Your task to perform on an android device: Open Yahoo.com Image 0: 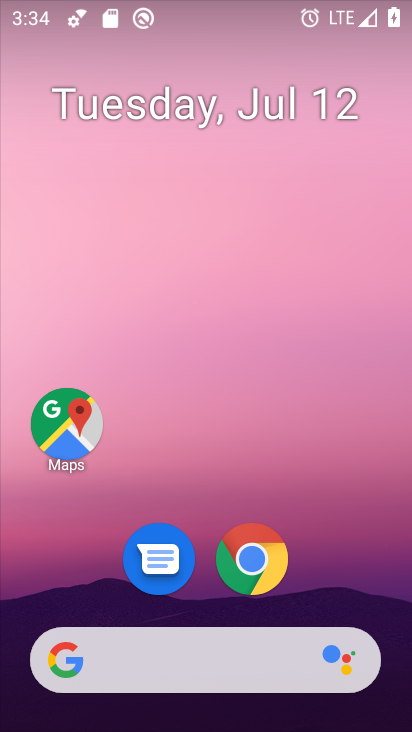
Step 0: drag from (382, 600) to (383, 127)
Your task to perform on an android device: Open Yahoo.com Image 1: 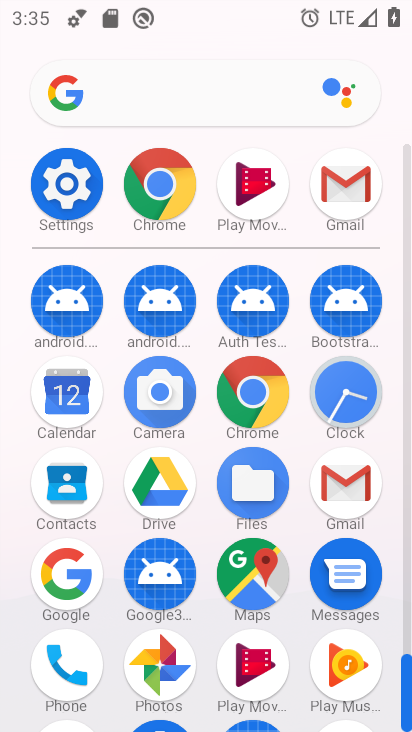
Step 1: click (260, 392)
Your task to perform on an android device: Open Yahoo.com Image 2: 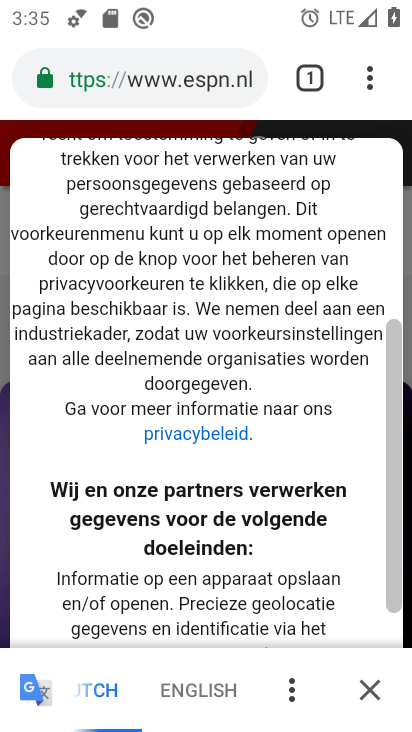
Step 2: click (215, 84)
Your task to perform on an android device: Open Yahoo.com Image 3: 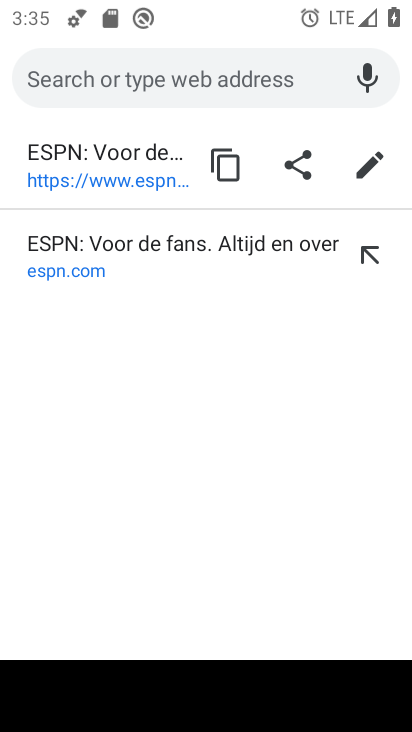
Step 3: type "yahoo.com"
Your task to perform on an android device: Open Yahoo.com Image 4: 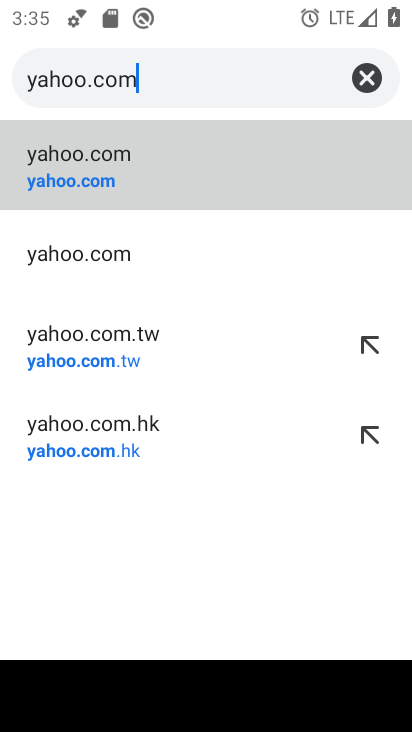
Step 4: click (367, 199)
Your task to perform on an android device: Open Yahoo.com Image 5: 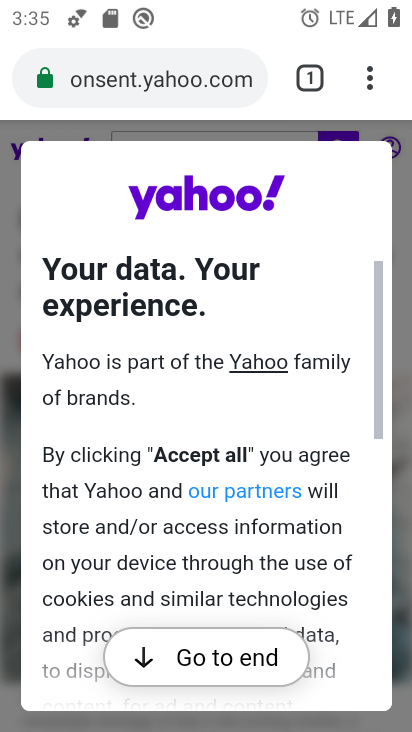
Step 5: task complete